Your task to perform on an android device: allow cookies in the chrome app Image 0: 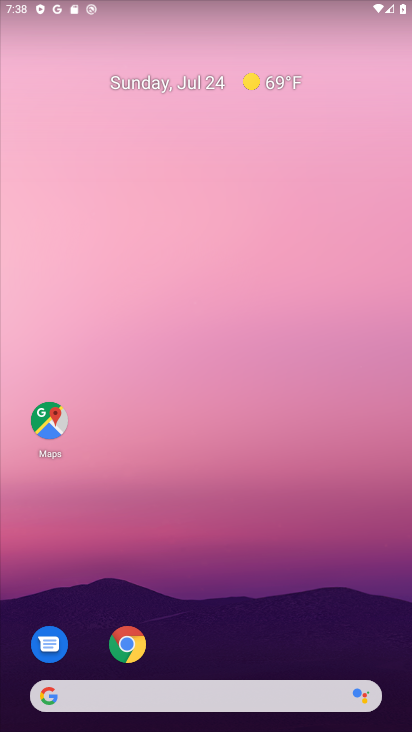
Step 0: click (127, 643)
Your task to perform on an android device: allow cookies in the chrome app Image 1: 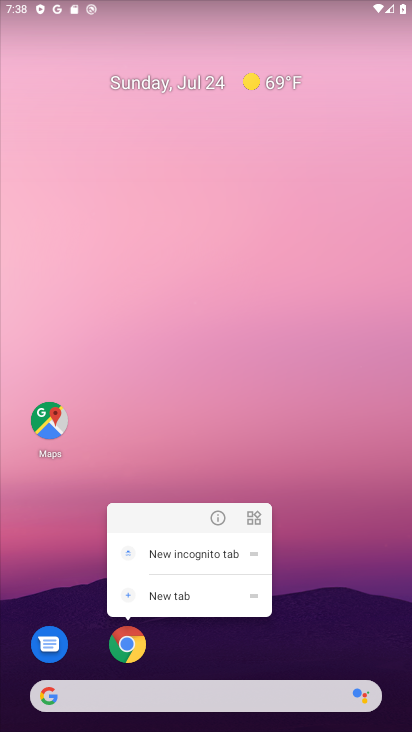
Step 1: click (119, 641)
Your task to perform on an android device: allow cookies in the chrome app Image 2: 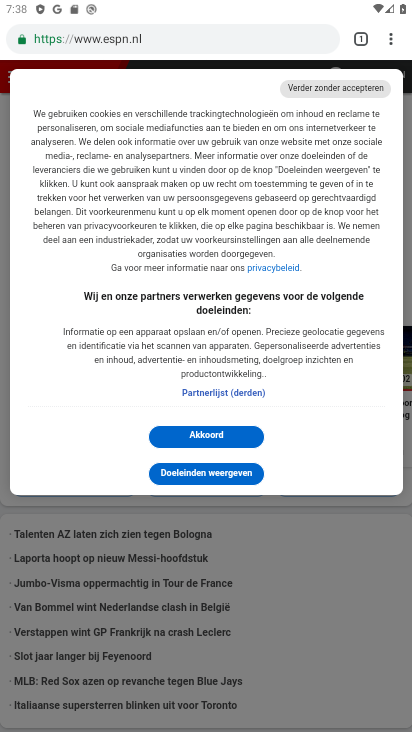
Step 2: click (394, 32)
Your task to perform on an android device: allow cookies in the chrome app Image 3: 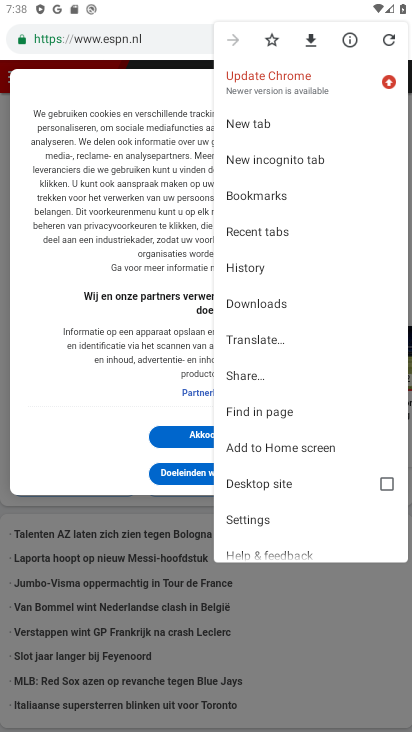
Step 3: click (240, 521)
Your task to perform on an android device: allow cookies in the chrome app Image 4: 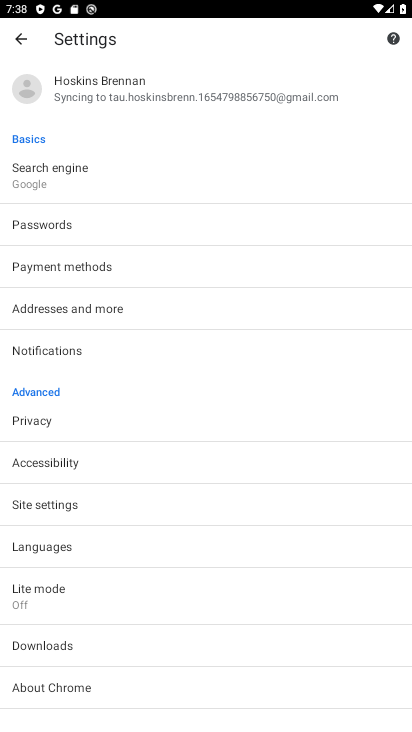
Step 4: click (60, 505)
Your task to perform on an android device: allow cookies in the chrome app Image 5: 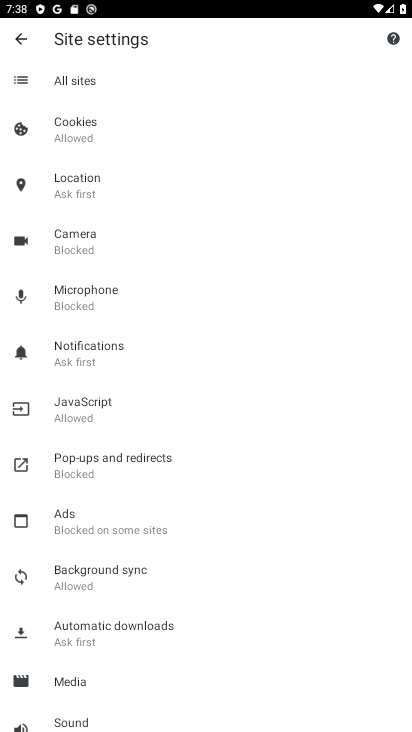
Step 5: click (80, 132)
Your task to perform on an android device: allow cookies in the chrome app Image 6: 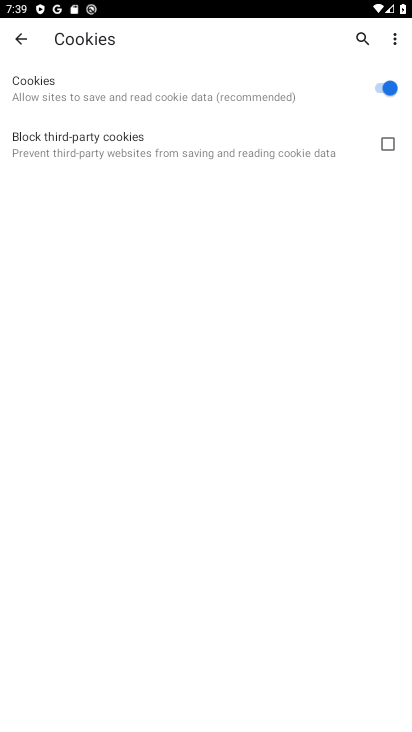
Step 6: task complete